Your task to perform on an android device: Go to network settings Image 0: 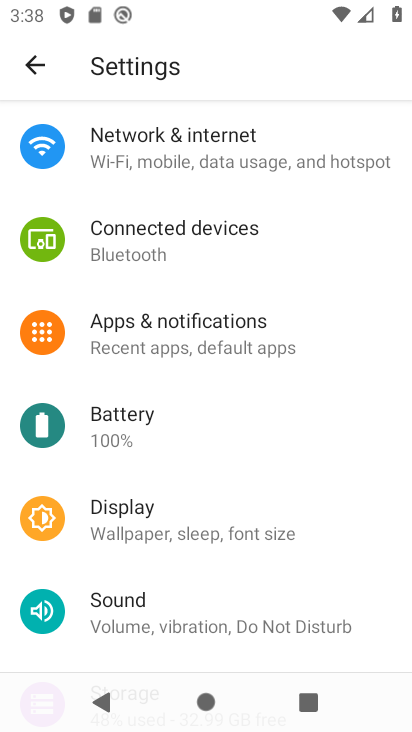
Step 0: press home button
Your task to perform on an android device: Go to network settings Image 1: 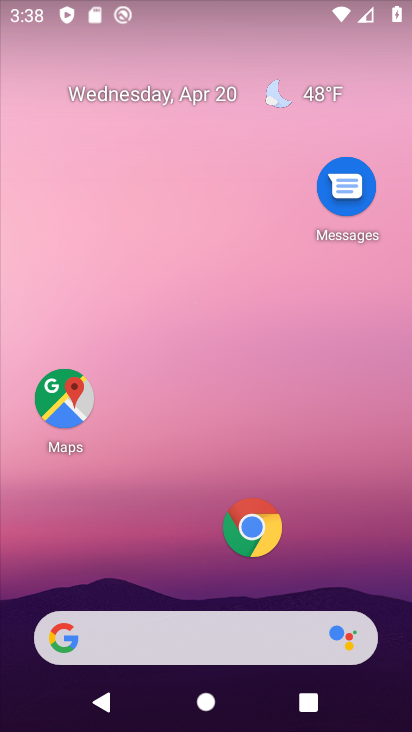
Step 1: drag from (195, 649) to (303, 112)
Your task to perform on an android device: Go to network settings Image 2: 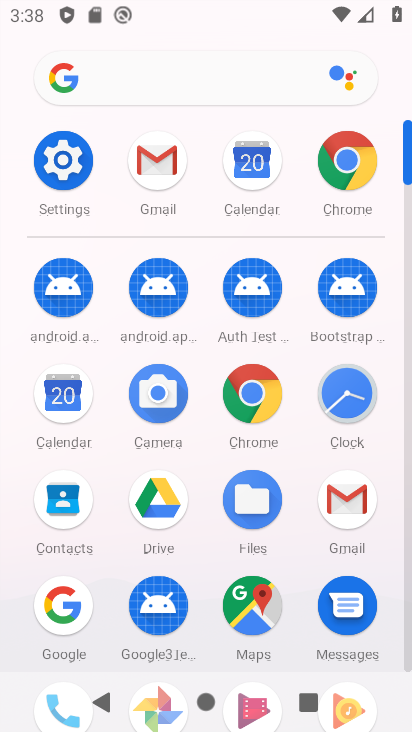
Step 2: click (62, 160)
Your task to perform on an android device: Go to network settings Image 3: 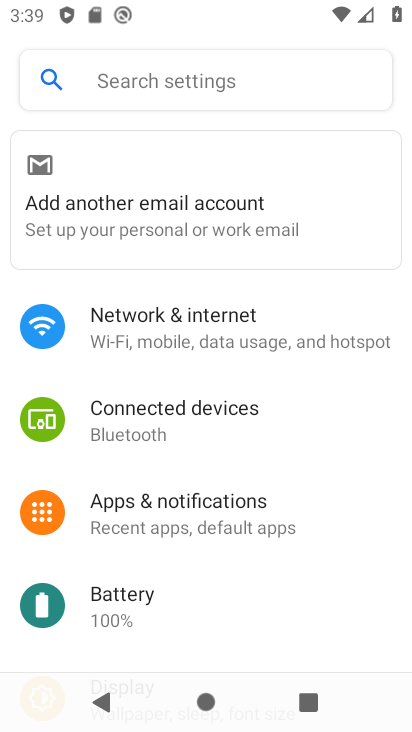
Step 3: click (136, 331)
Your task to perform on an android device: Go to network settings Image 4: 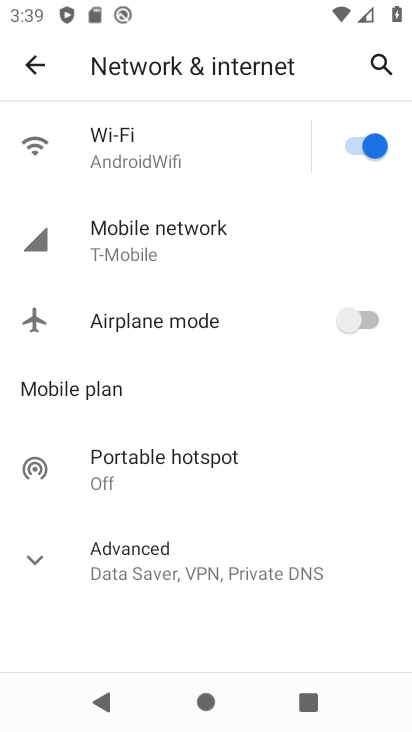
Step 4: click (168, 151)
Your task to perform on an android device: Go to network settings Image 5: 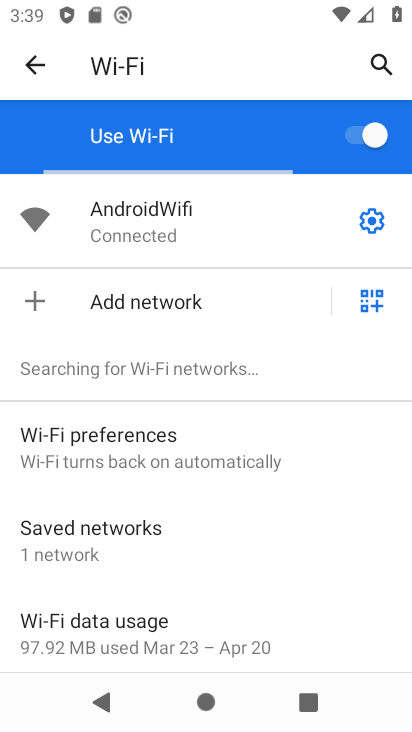
Step 5: task complete